Your task to perform on an android device: Show me the alarms in the clock app Image 0: 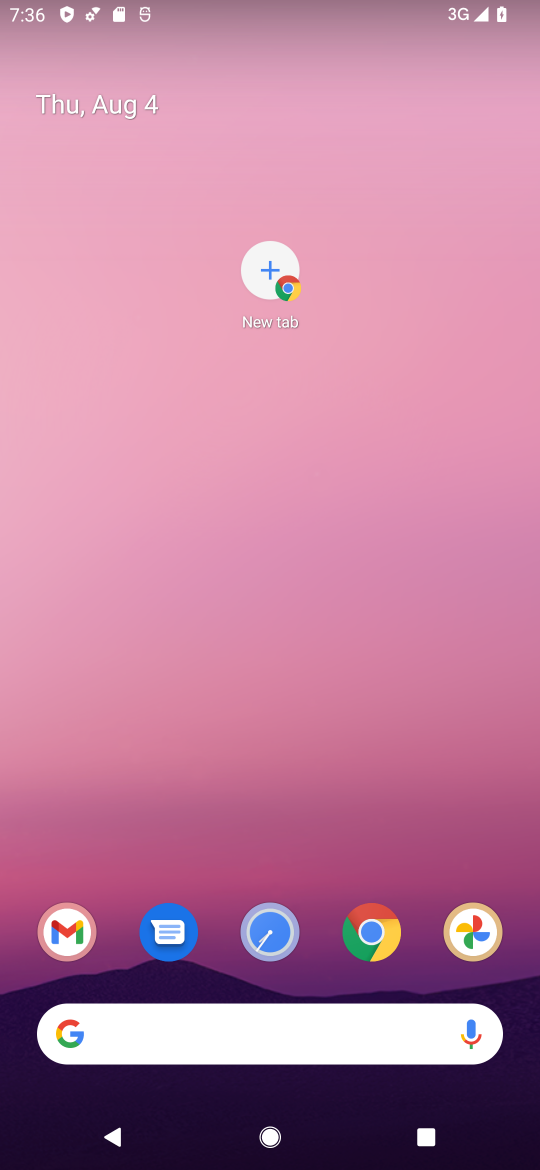
Step 0: drag from (273, 558) to (287, 307)
Your task to perform on an android device: Show me the alarms in the clock app Image 1: 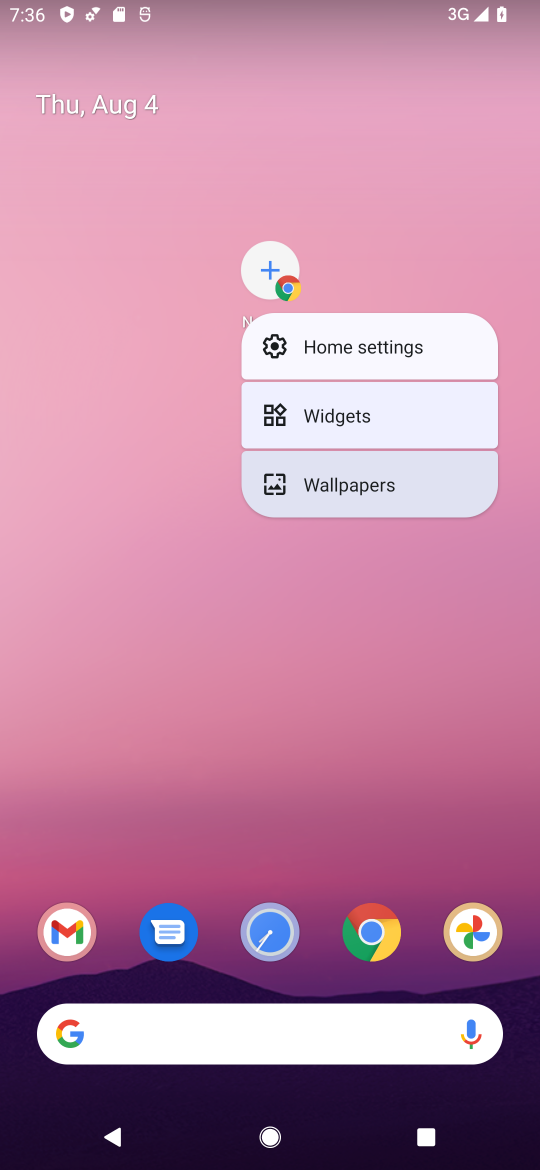
Step 1: drag from (3, 134) to (207, 155)
Your task to perform on an android device: Show me the alarms in the clock app Image 2: 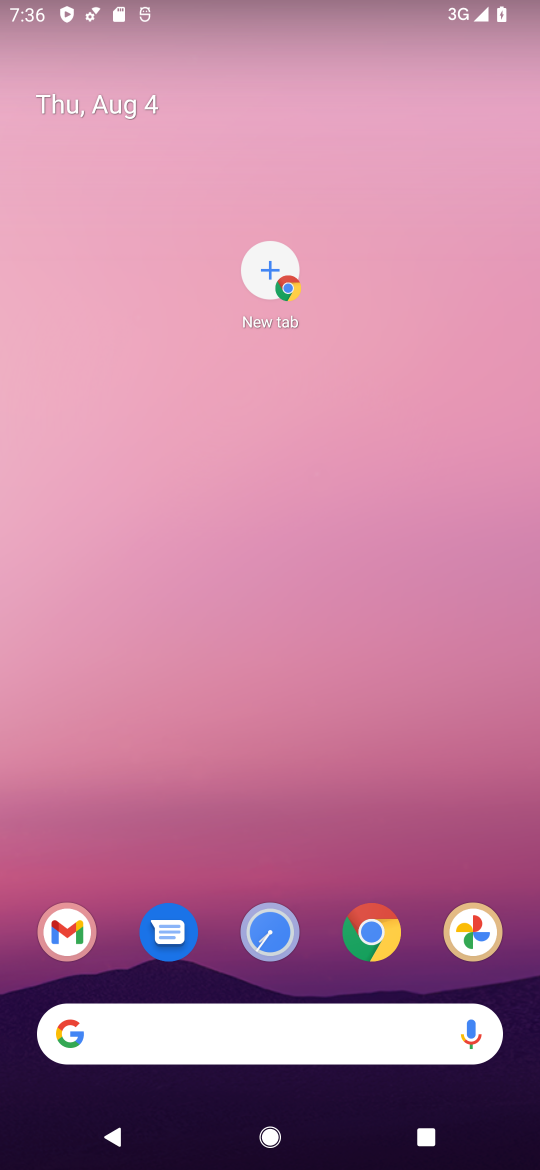
Step 2: drag from (282, 779) to (322, 292)
Your task to perform on an android device: Show me the alarms in the clock app Image 3: 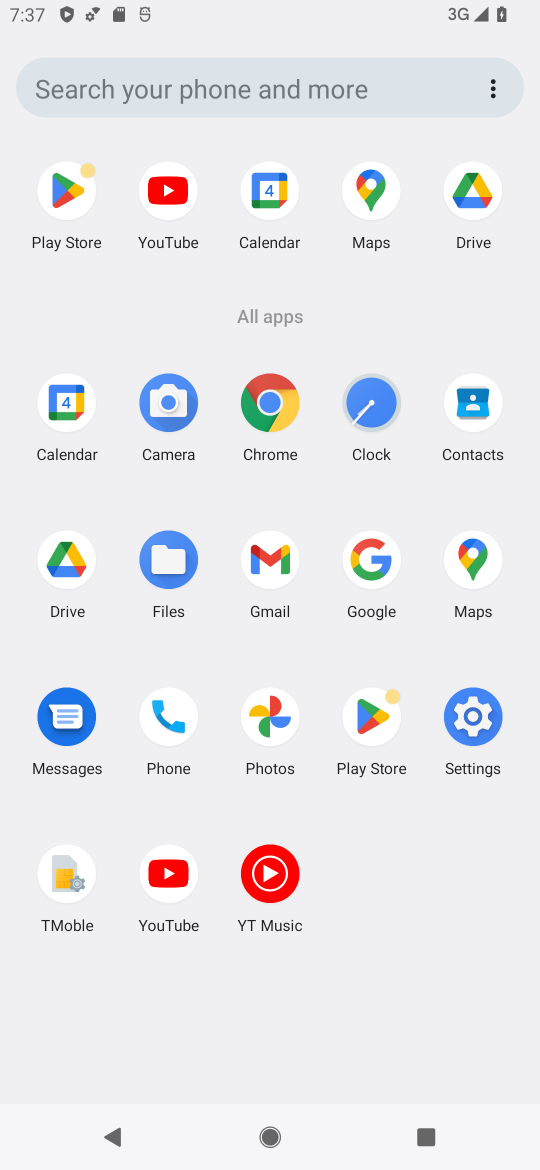
Step 3: click (379, 393)
Your task to perform on an android device: Show me the alarms in the clock app Image 4: 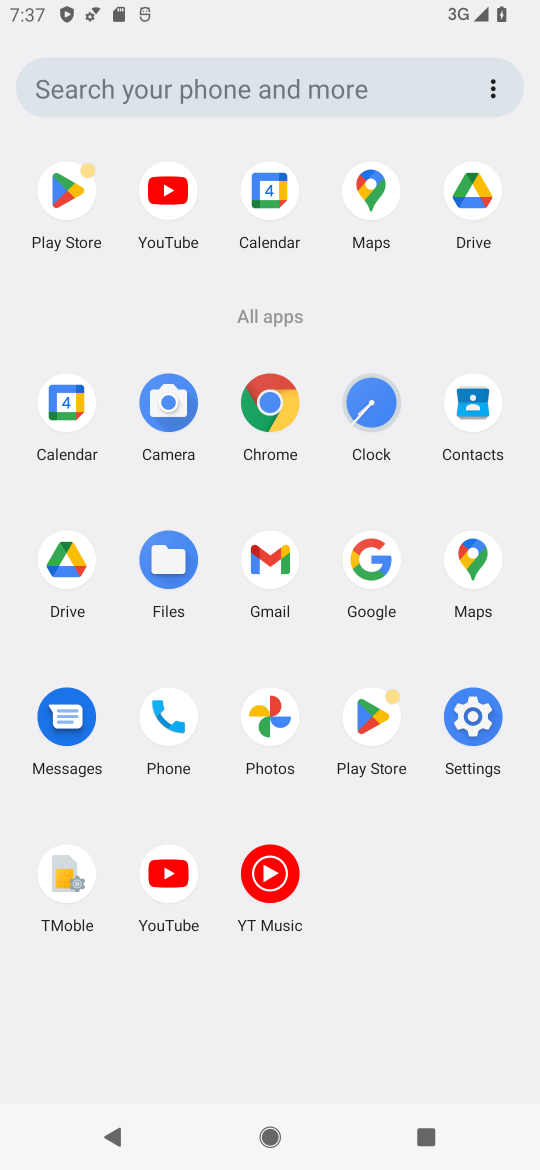
Step 4: click (379, 393)
Your task to perform on an android device: Show me the alarms in the clock app Image 5: 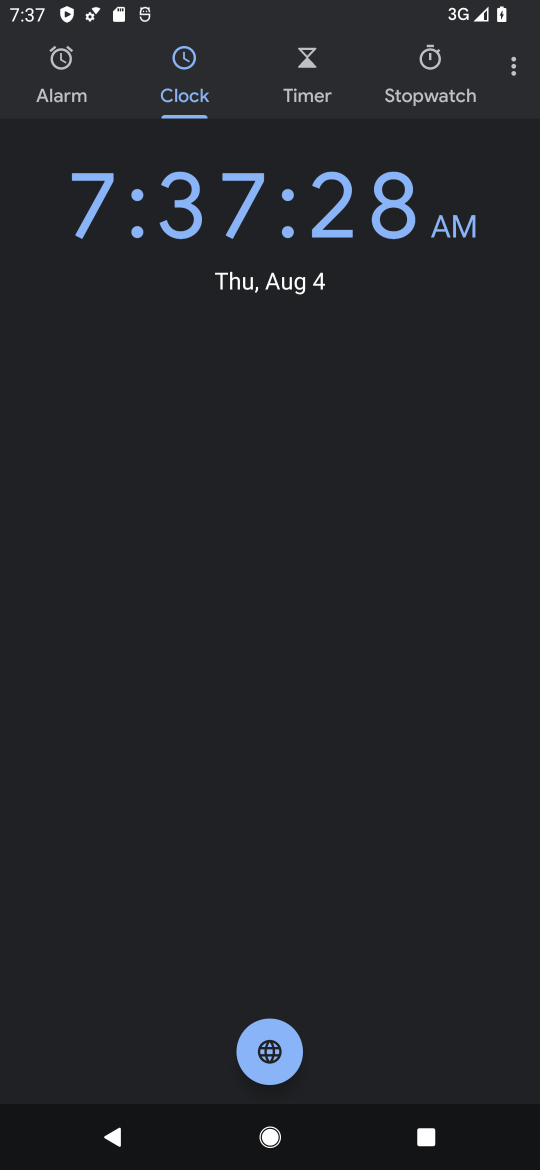
Step 5: click (47, 67)
Your task to perform on an android device: Show me the alarms in the clock app Image 6: 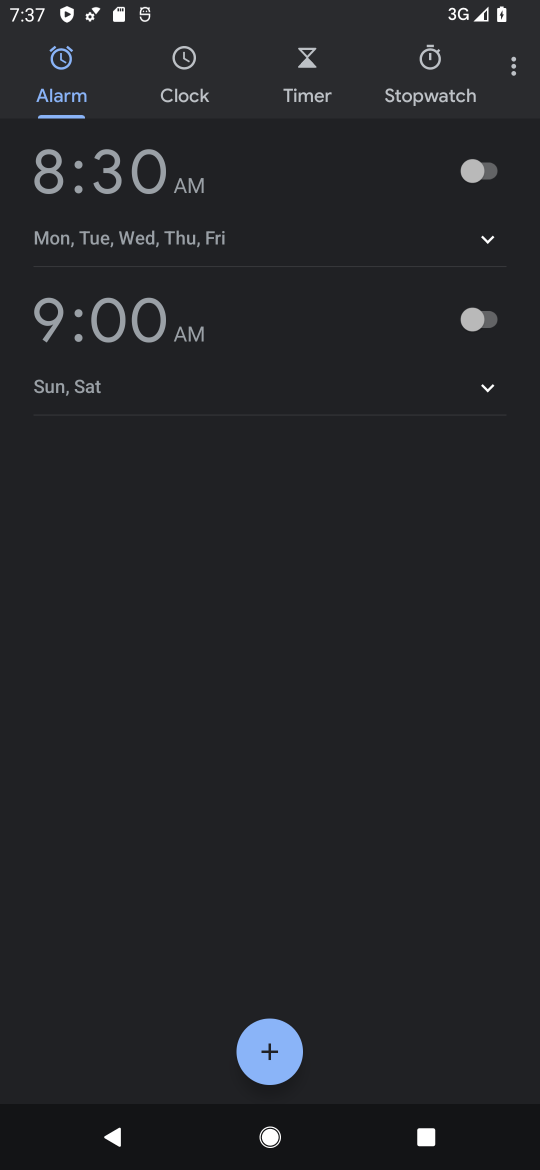
Step 6: click (461, 171)
Your task to perform on an android device: Show me the alarms in the clock app Image 7: 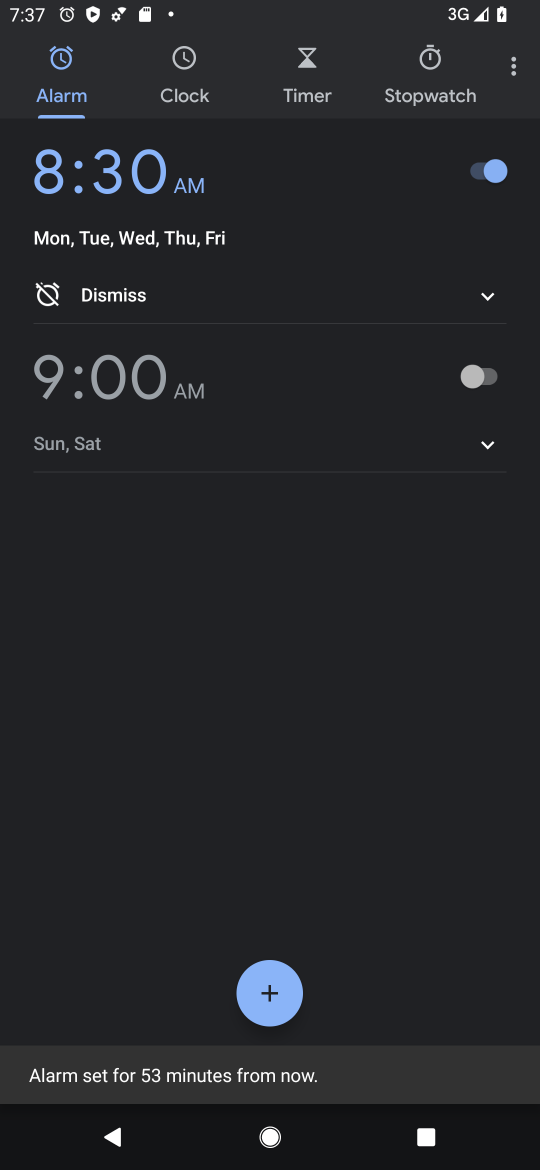
Step 7: task complete